Your task to perform on an android device: What's on my calendar today? Image 0: 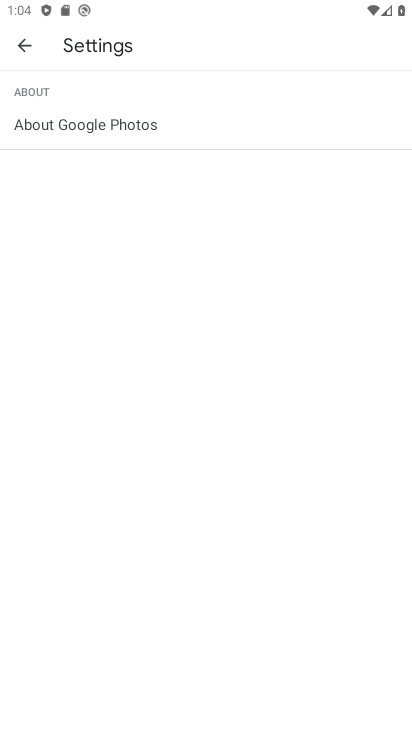
Step 0: press home button
Your task to perform on an android device: What's on my calendar today? Image 1: 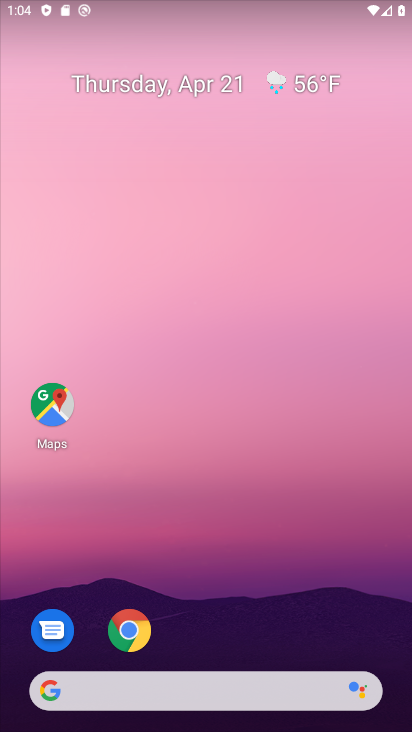
Step 1: drag from (209, 605) to (251, 113)
Your task to perform on an android device: What's on my calendar today? Image 2: 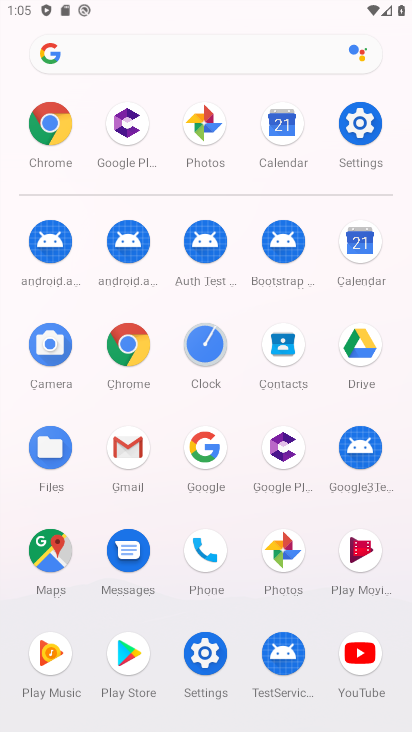
Step 2: click (361, 245)
Your task to perform on an android device: What's on my calendar today? Image 3: 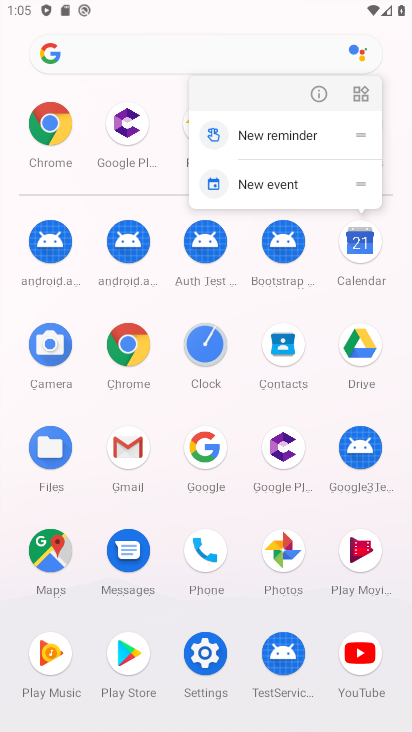
Step 3: click (364, 244)
Your task to perform on an android device: What's on my calendar today? Image 4: 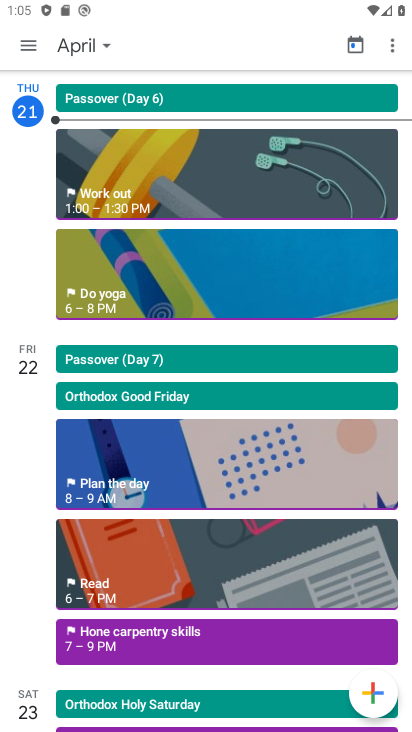
Step 4: task complete